Your task to perform on an android device: remove spam from my inbox in the gmail app Image 0: 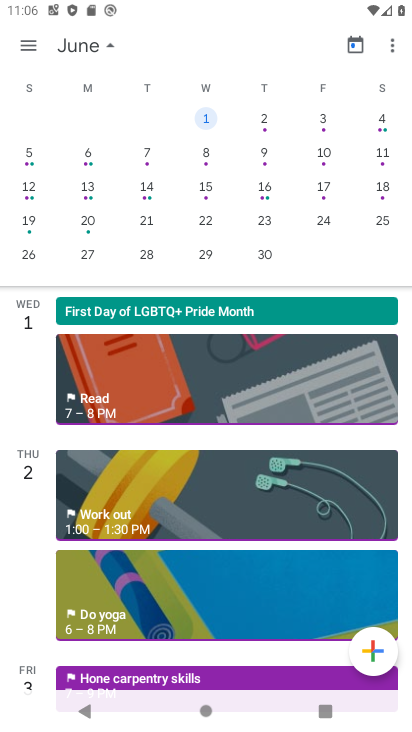
Step 0: press back button
Your task to perform on an android device: remove spam from my inbox in the gmail app Image 1: 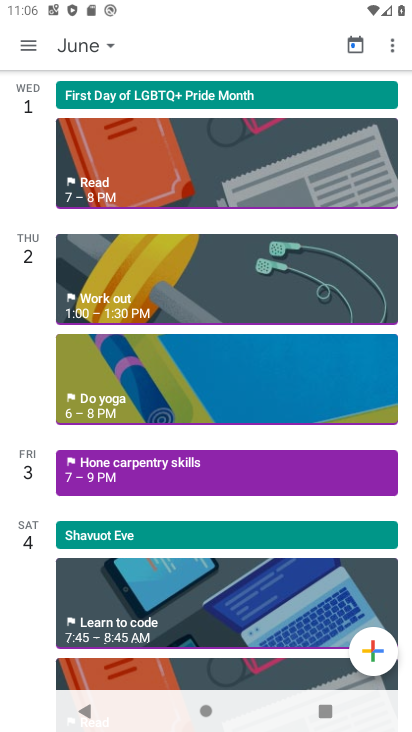
Step 1: press home button
Your task to perform on an android device: remove spam from my inbox in the gmail app Image 2: 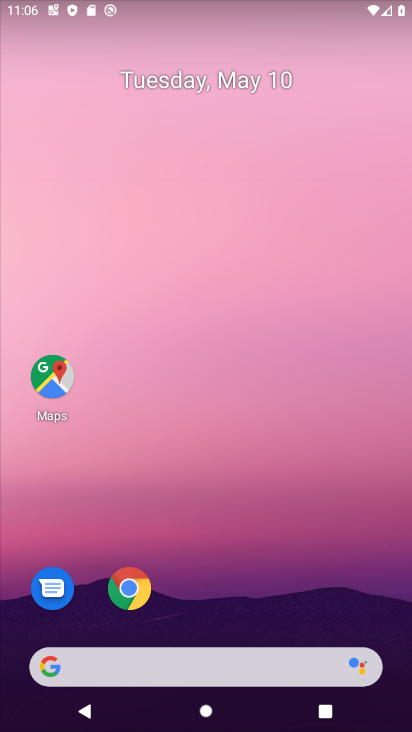
Step 2: drag from (285, 622) to (59, 152)
Your task to perform on an android device: remove spam from my inbox in the gmail app Image 3: 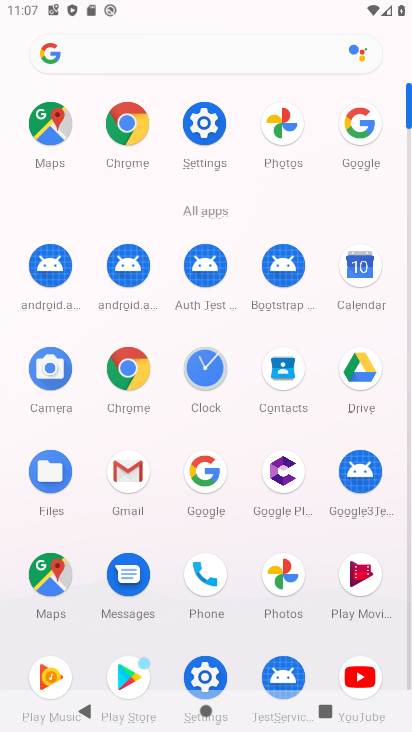
Step 3: click (124, 465)
Your task to perform on an android device: remove spam from my inbox in the gmail app Image 4: 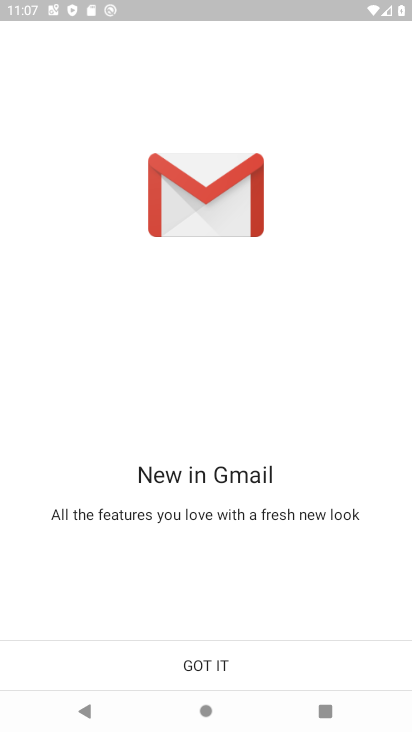
Step 4: click (219, 655)
Your task to perform on an android device: remove spam from my inbox in the gmail app Image 5: 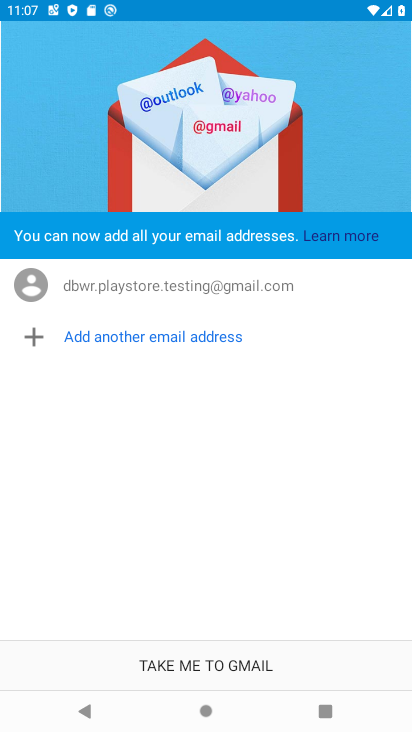
Step 5: click (217, 664)
Your task to perform on an android device: remove spam from my inbox in the gmail app Image 6: 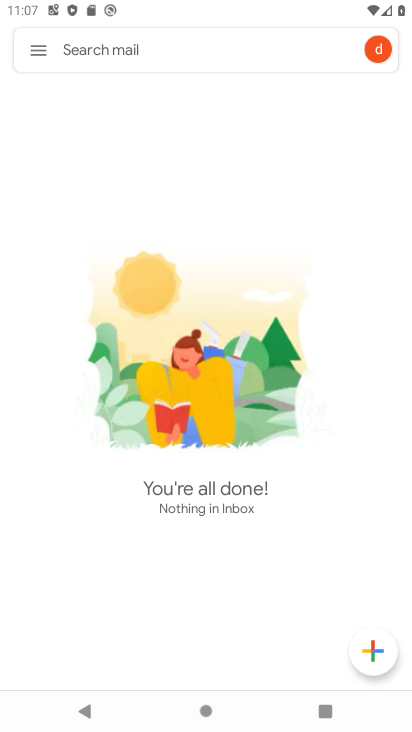
Step 6: click (39, 50)
Your task to perform on an android device: remove spam from my inbox in the gmail app Image 7: 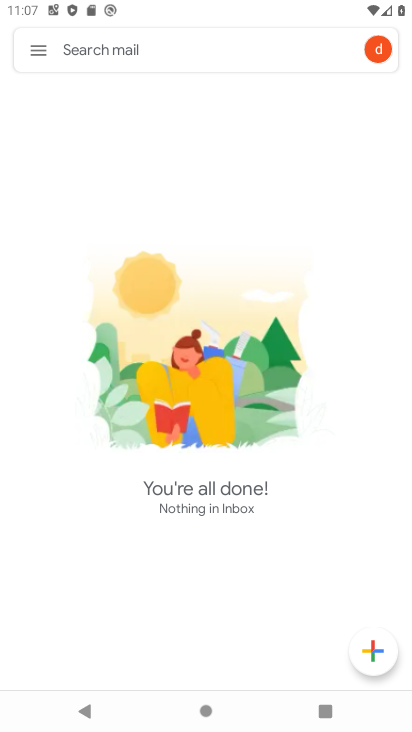
Step 7: click (41, 60)
Your task to perform on an android device: remove spam from my inbox in the gmail app Image 8: 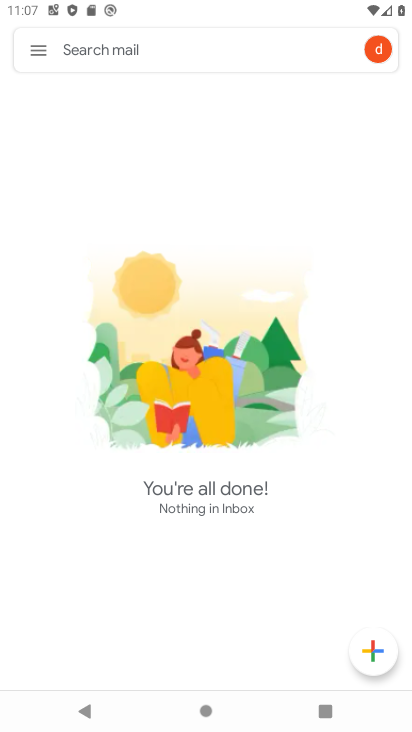
Step 8: click (41, 60)
Your task to perform on an android device: remove spam from my inbox in the gmail app Image 9: 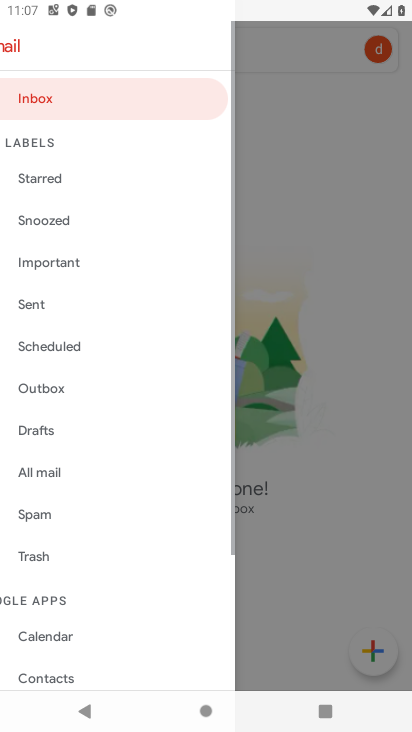
Step 9: click (41, 60)
Your task to perform on an android device: remove spam from my inbox in the gmail app Image 10: 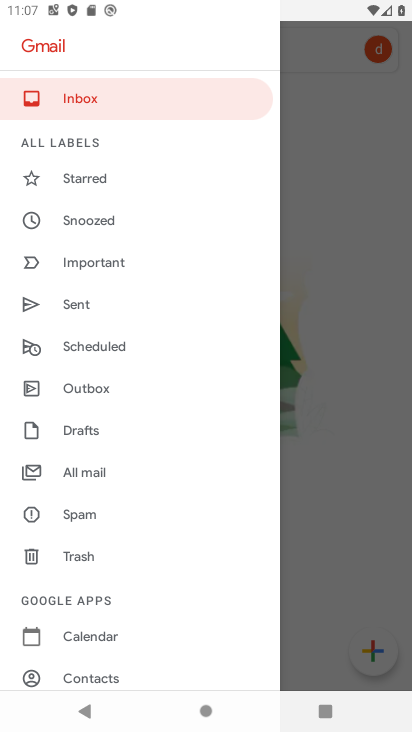
Step 10: click (84, 509)
Your task to perform on an android device: remove spam from my inbox in the gmail app Image 11: 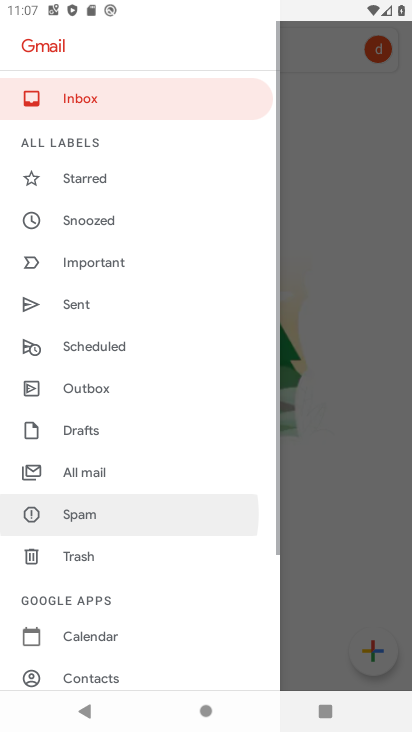
Step 11: click (83, 511)
Your task to perform on an android device: remove spam from my inbox in the gmail app Image 12: 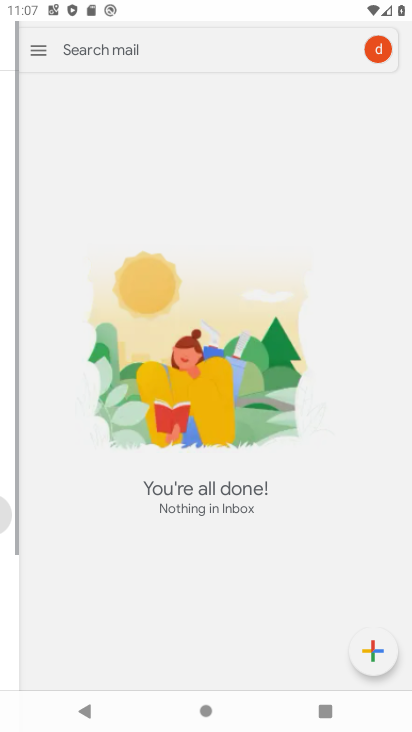
Step 12: click (83, 511)
Your task to perform on an android device: remove spam from my inbox in the gmail app Image 13: 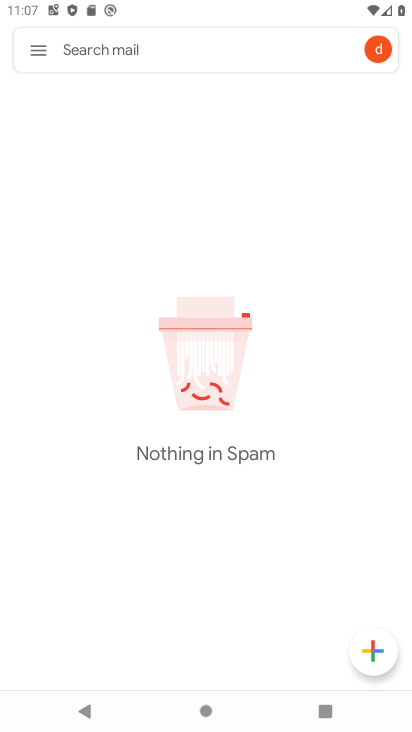
Step 13: task complete